Your task to perform on an android device: Open Reddit.com Image 0: 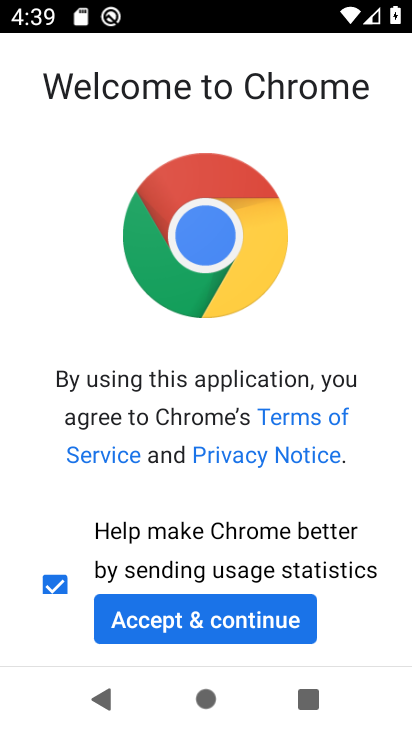
Step 0: press home button
Your task to perform on an android device: Open Reddit.com Image 1: 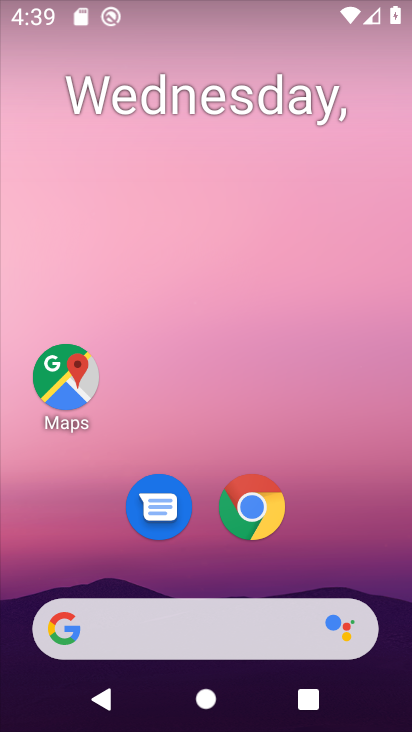
Step 1: click (165, 619)
Your task to perform on an android device: Open Reddit.com Image 2: 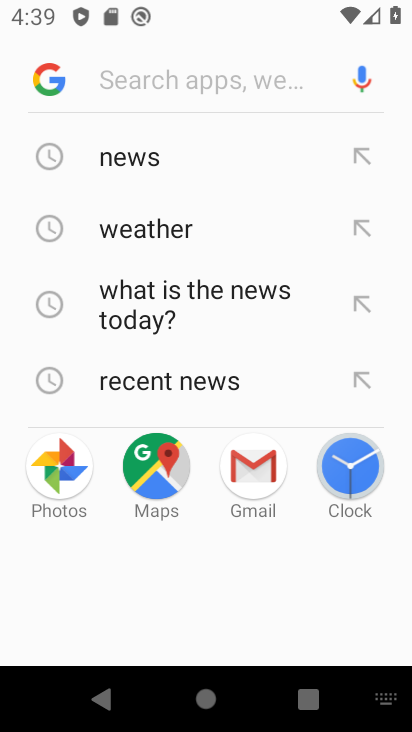
Step 2: type "Reddit.com"
Your task to perform on an android device: Open Reddit.com Image 3: 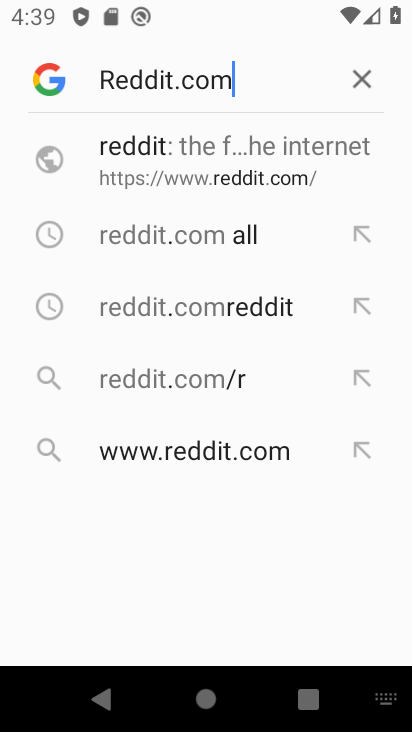
Step 3: click (243, 179)
Your task to perform on an android device: Open Reddit.com Image 4: 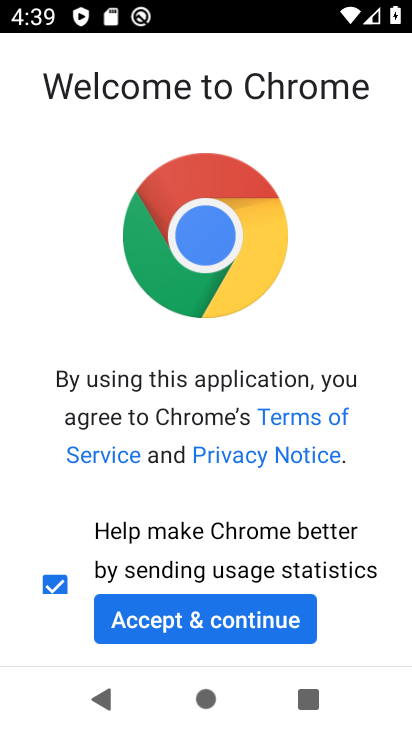
Step 4: click (239, 627)
Your task to perform on an android device: Open Reddit.com Image 5: 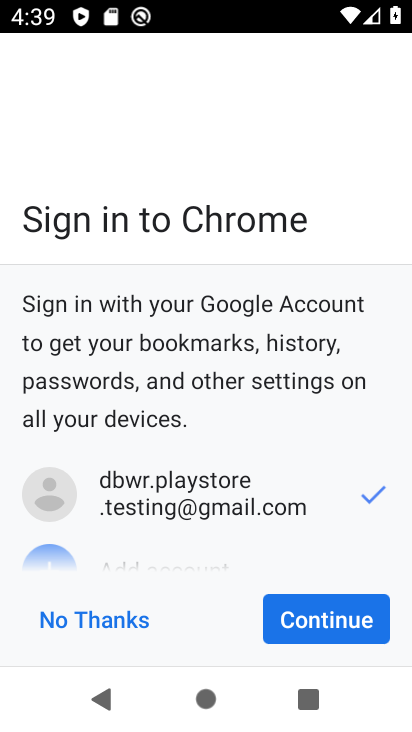
Step 5: click (299, 621)
Your task to perform on an android device: Open Reddit.com Image 6: 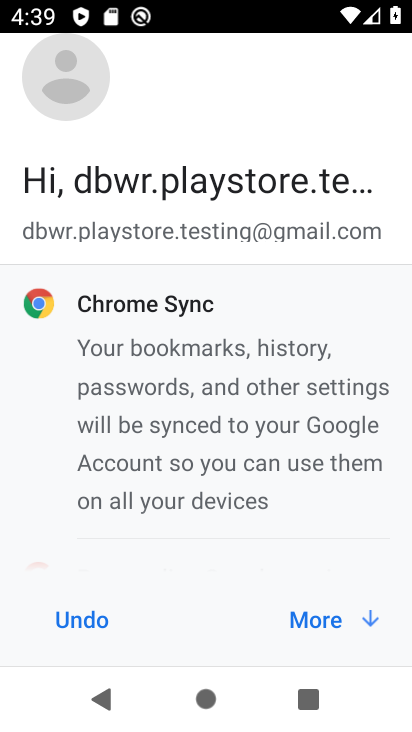
Step 6: click (303, 621)
Your task to perform on an android device: Open Reddit.com Image 7: 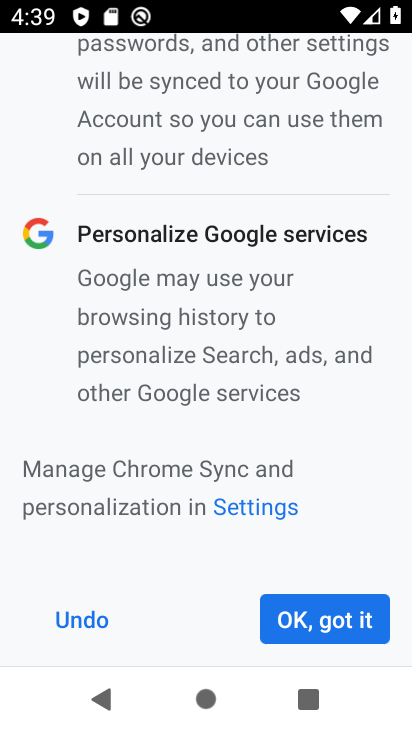
Step 7: click (313, 620)
Your task to perform on an android device: Open Reddit.com Image 8: 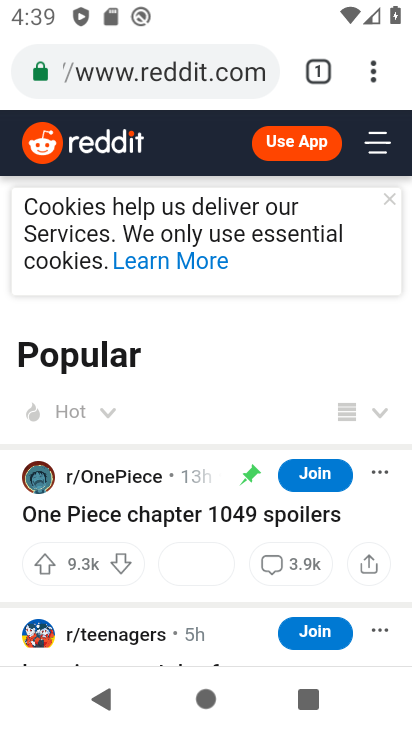
Step 8: task complete